Your task to perform on an android device: open the mobile data screen to see how much data has been used Image 0: 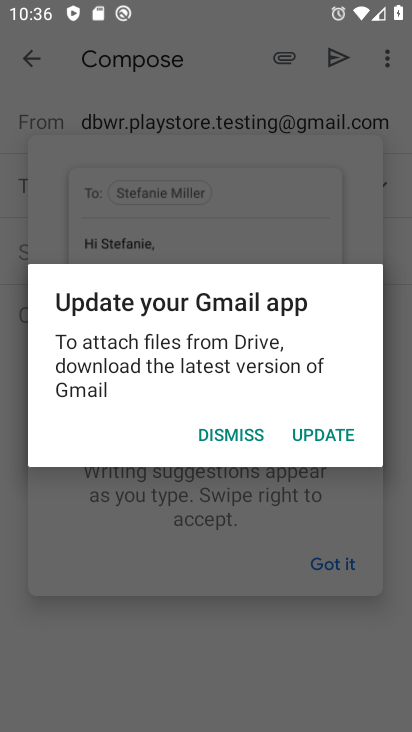
Step 0: press home button
Your task to perform on an android device: open the mobile data screen to see how much data has been used Image 1: 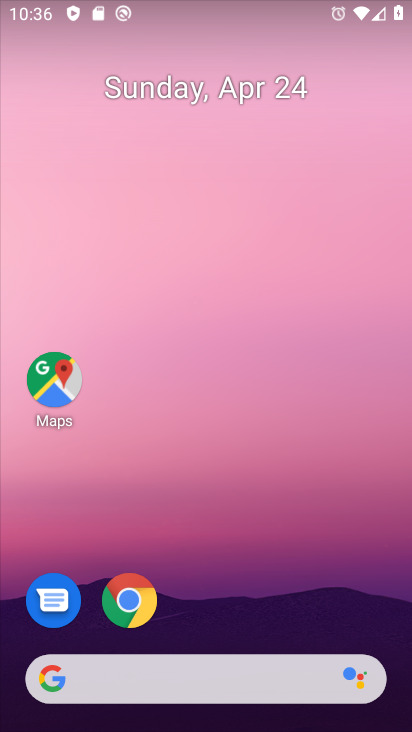
Step 1: drag from (88, 485) to (251, 97)
Your task to perform on an android device: open the mobile data screen to see how much data has been used Image 2: 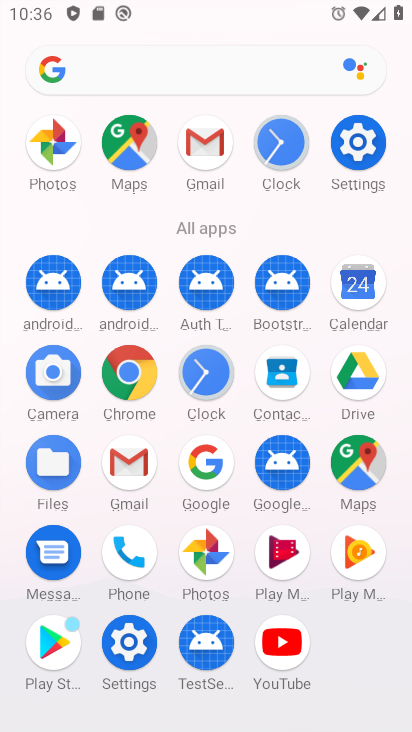
Step 2: click (352, 151)
Your task to perform on an android device: open the mobile data screen to see how much data has been used Image 3: 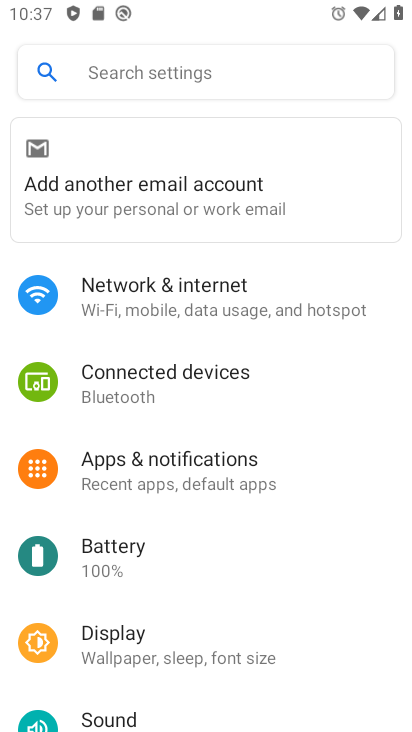
Step 3: click (213, 296)
Your task to perform on an android device: open the mobile data screen to see how much data has been used Image 4: 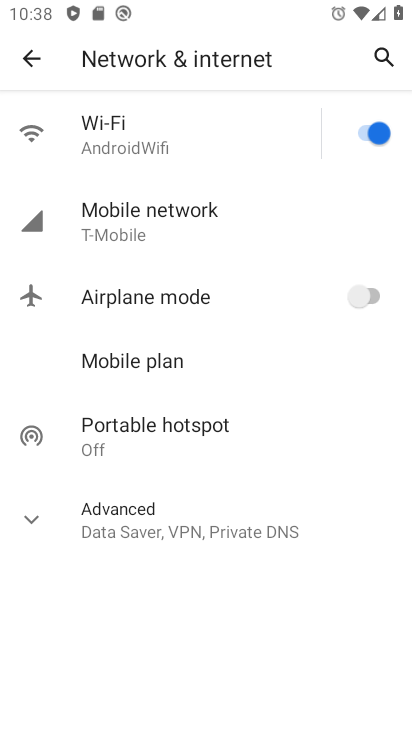
Step 4: click (119, 236)
Your task to perform on an android device: open the mobile data screen to see how much data has been used Image 5: 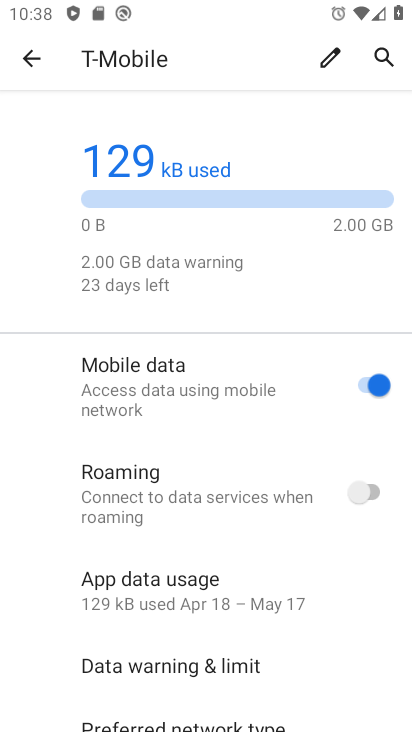
Step 5: task complete